Your task to perform on an android device: turn on sleep mode Image 0: 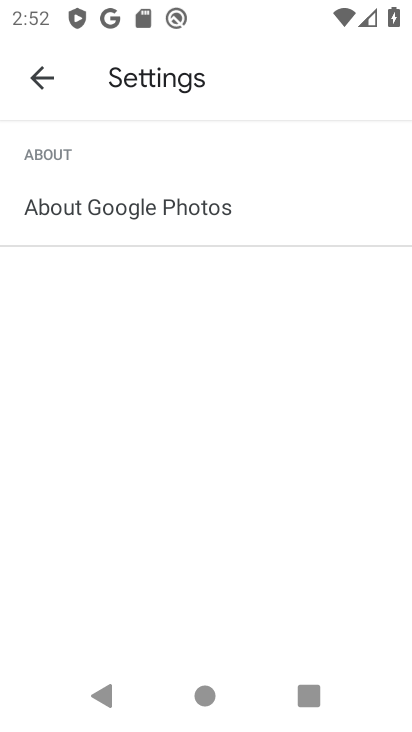
Step 0: press home button
Your task to perform on an android device: turn on sleep mode Image 1: 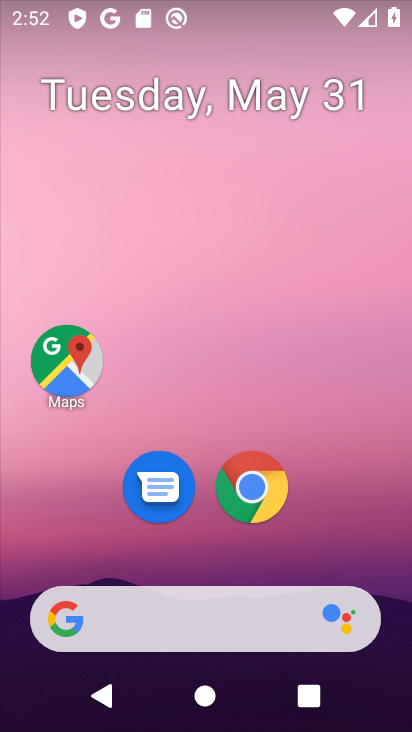
Step 1: drag from (62, 588) to (211, 208)
Your task to perform on an android device: turn on sleep mode Image 2: 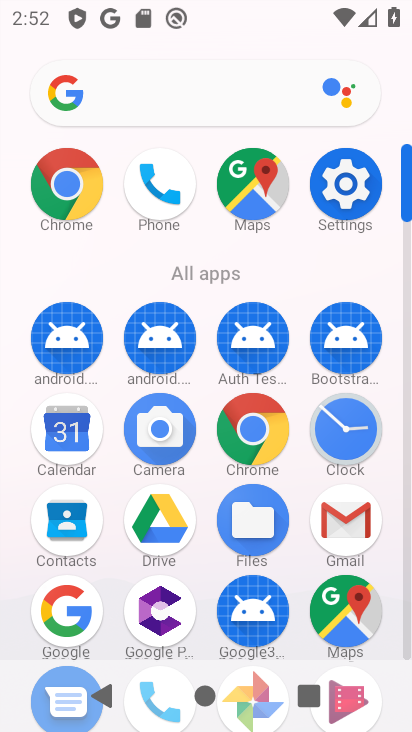
Step 2: drag from (205, 549) to (297, 261)
Your task to perform on an android device: turn on sleep mode Image 3: 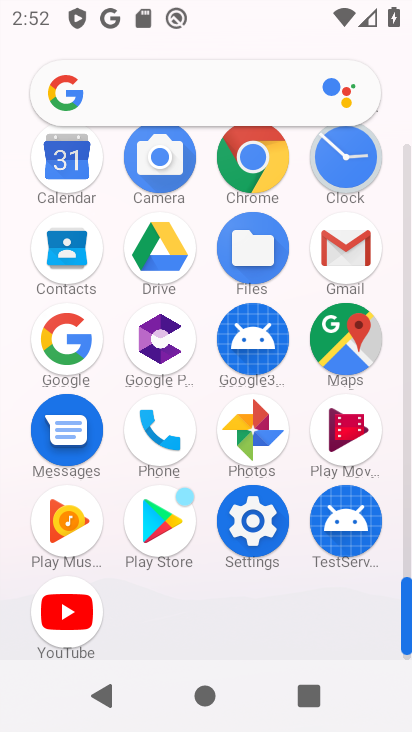
Step 3: click (262, 554)
Your task to perform on an android device: turn on sleep mode Image 4: 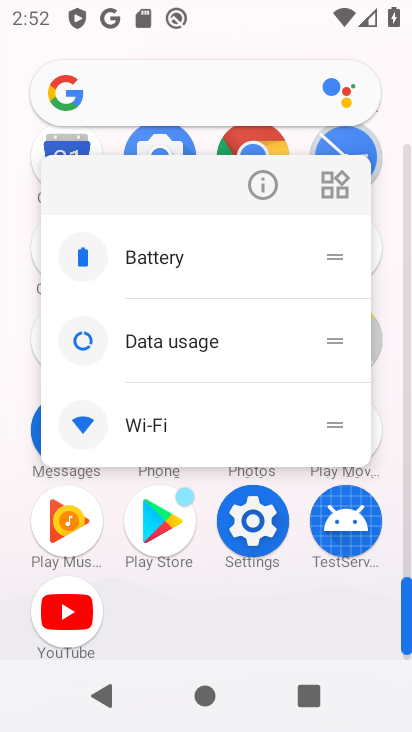
Step 4: click (239, 509)
Your task to perform on an android device: turn on sleep mode Image 5: 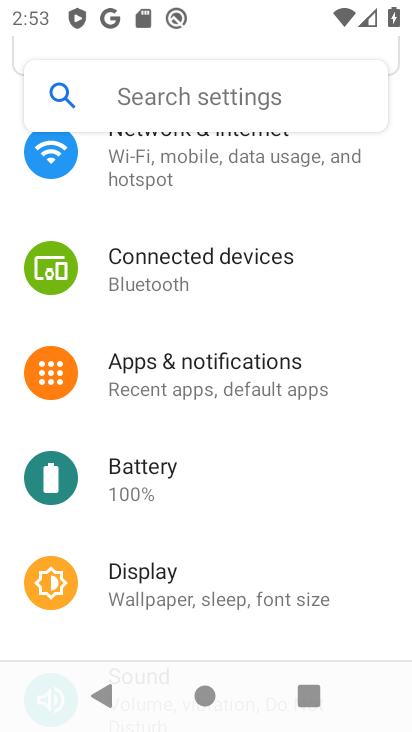
Step 5: click (226, 571)
Your task to perform on an android device: turn on sleep mode Image 6: 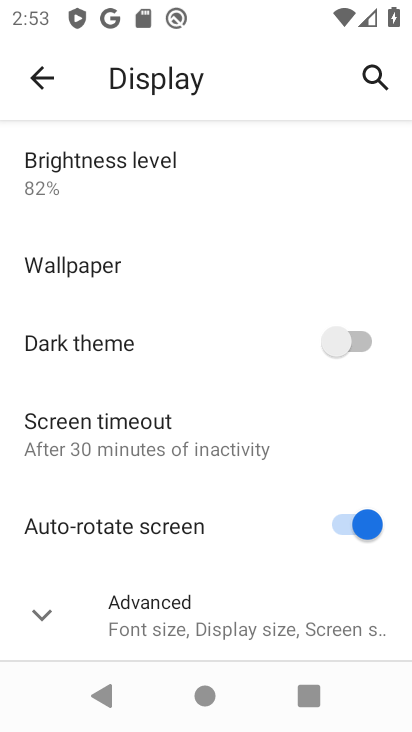
Step 6: task complete